Your task to perform on an android device: Search for vegetarian restaurants on Maps Image 0: 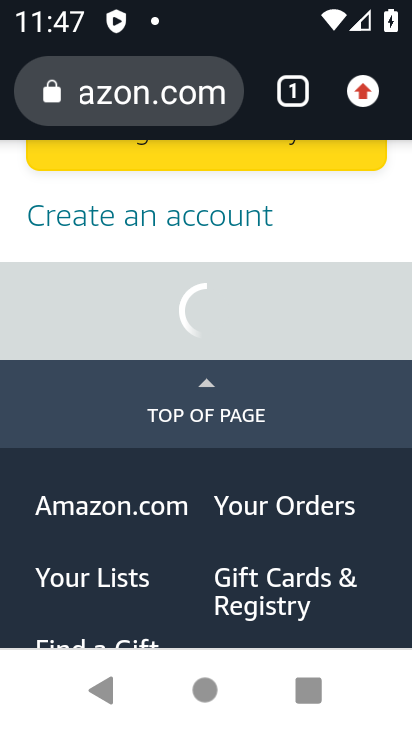
Step 0: press home button
Your task to perform on an android device: Search for vegetarian restaurants on Maps Image 1: 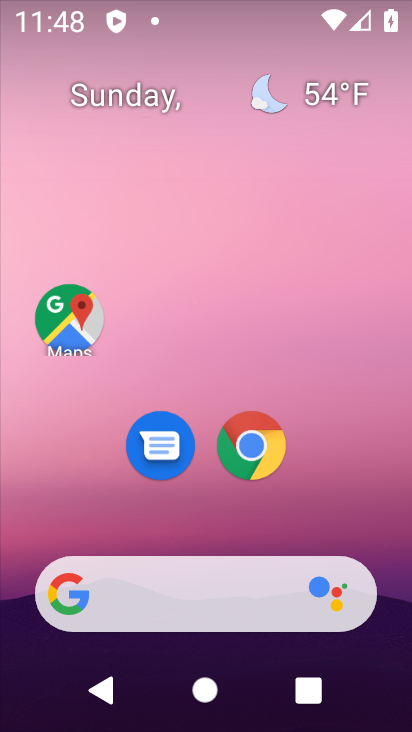
Step 1: drag from (337, 480) to (337, 168)
Your task to perform on an android device: Search for vegetarian restaurants on Maps Image 2: 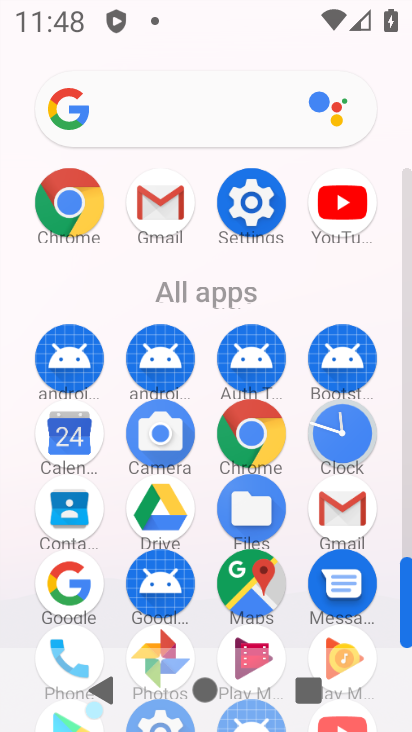
Step 2: click (241, 574)
Your task to perform on an android device: Search for vegetarian restaurants on Maps Image 3: 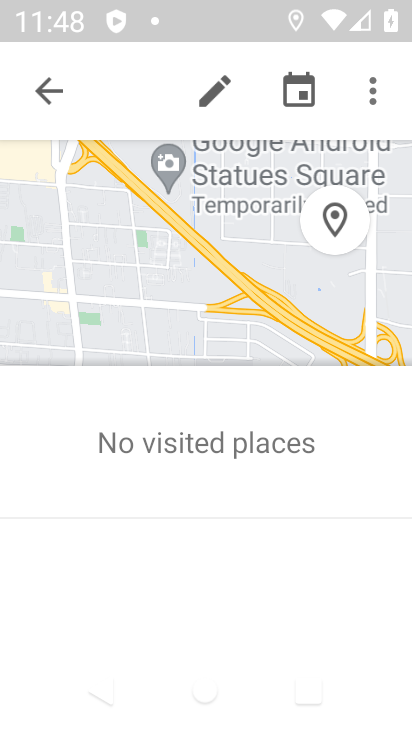
Step 3: click (53, 88)
Your task to perform on an android device: Search for vegetarian restaurants on Maps Image 4: 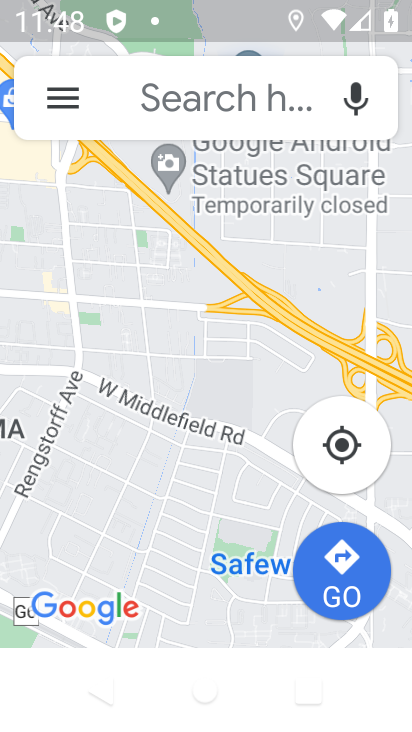
Step 4: click (160, 89)
Your task to perform on an android device: Search for vegetarian restaurants on Maps Image 5: 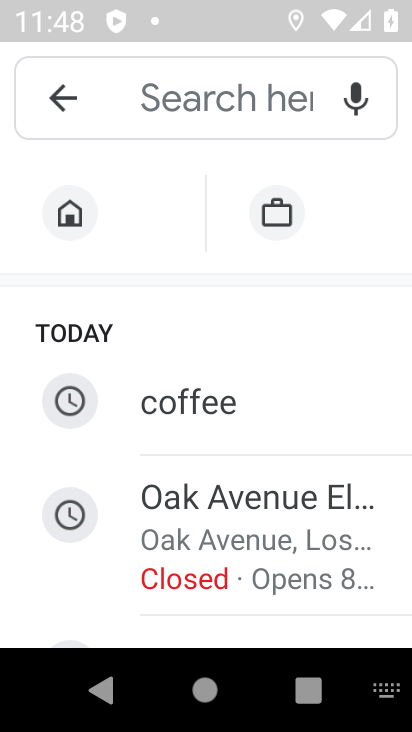
Step 5: type "vegetarian restaurants"
Your task to perform on an android device: Search for vegetarian restaurants on Maps Image 6: 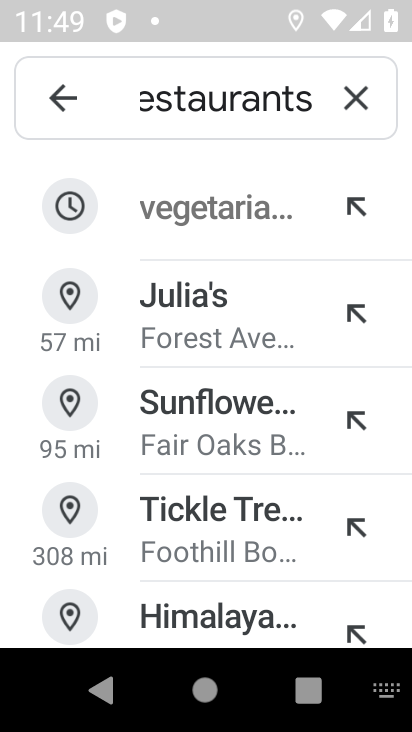
Step 6: click (237, 218)
Your task to perform on an android device: Search for vegetarian restaurants on Maps Image 7: 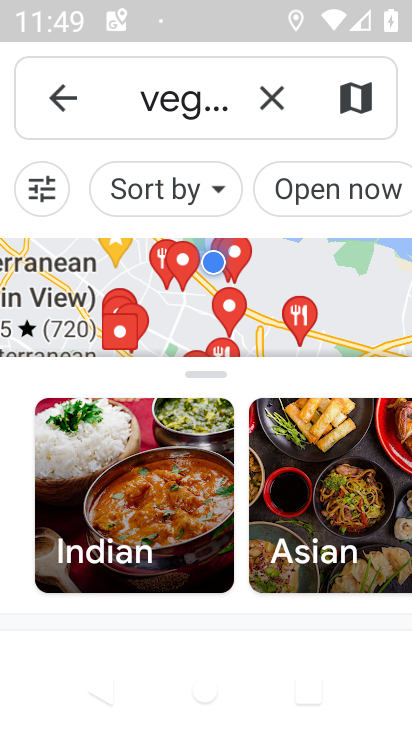
Step 7: task complete